Your task to perform on an android device: set the stopwatch Image 0: 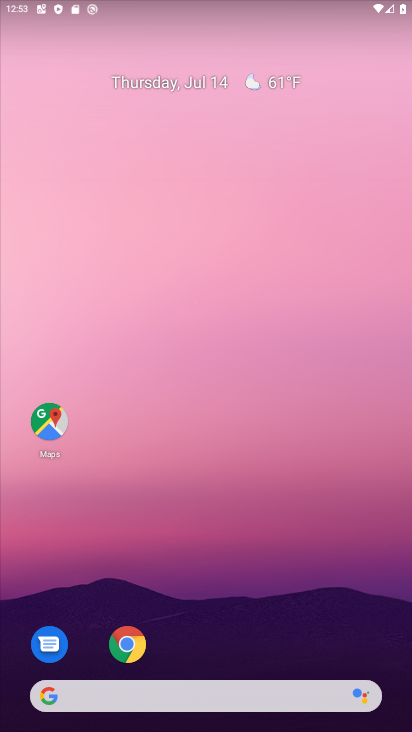
Step 0: drag from (274, 701) to (241, 16)
Your task to perform on an android device: set the stopwatch Image 1: 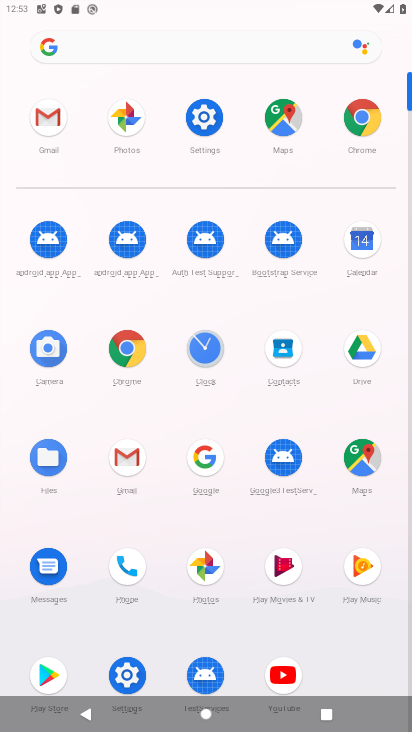
Step 1: click (212, 368)
Your task to perform on an android device: set the stopwatch Image 2: 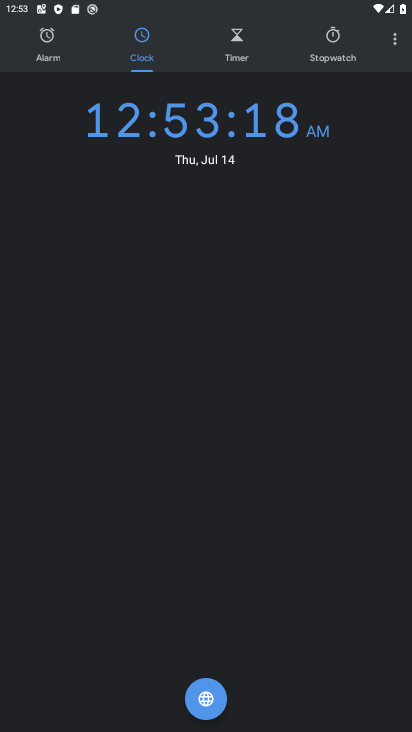
Step 2: click (324, 58)
Your task to perform on an android device: set the stopwatch Image 3: 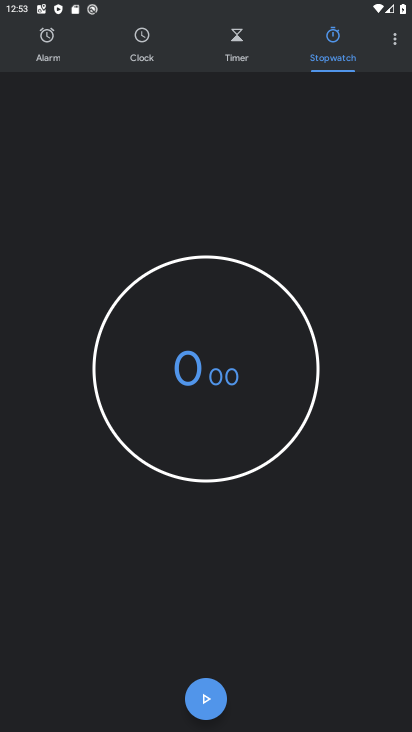
Step 3: click (200, 696)
Your task to perform on an android device: set the stopwatch Image 4: 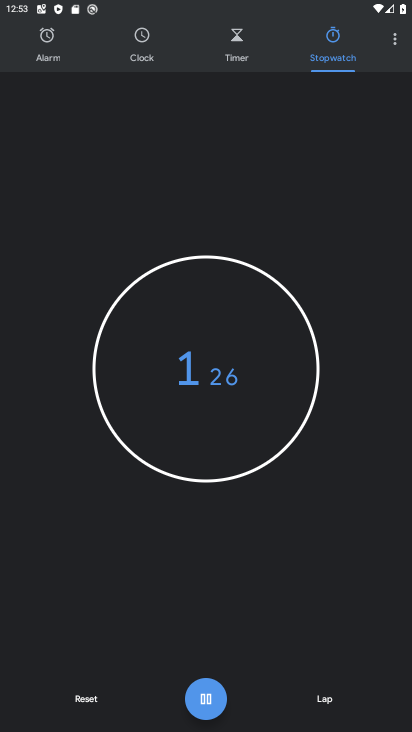
Step 4: task complete